Your task to perform on an android device: turn off location history Image 0: 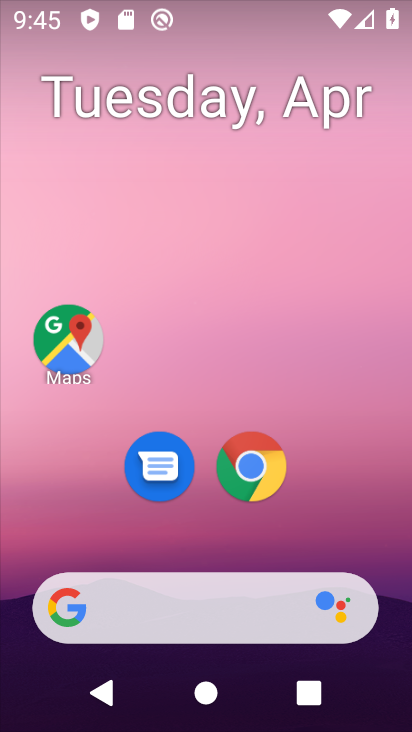
Step 0: drag from (201, 726) to (201, 27)
Your task to perform on an android device: turn off location history Image 1: 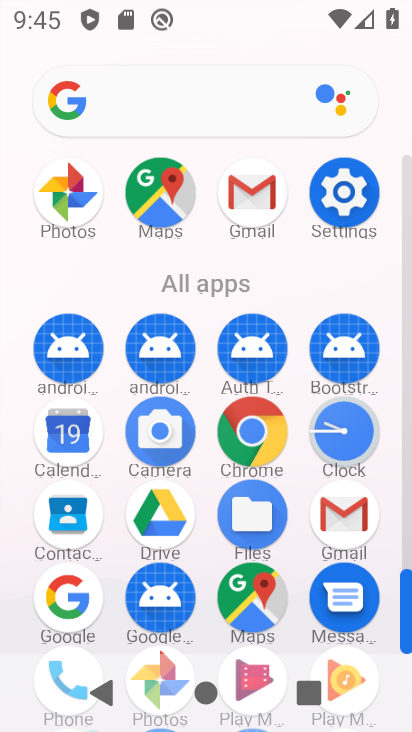
Step 1: click (340, 189)
Your task to perform on an android device: turn off location history Image 2: 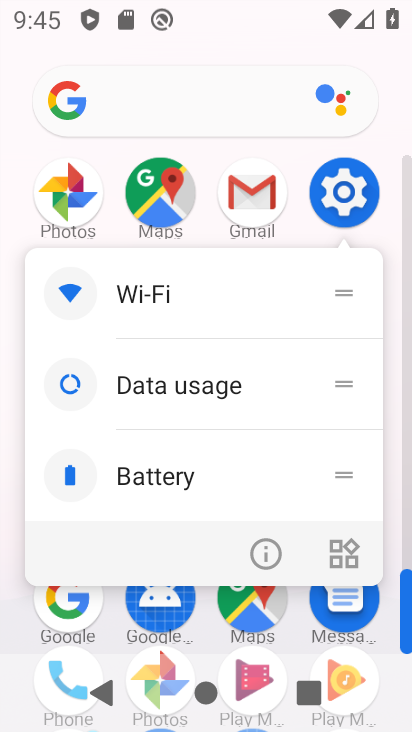
Step 2: click (339, 191)
Your task to perform on an android device: turn off location history Image 3: 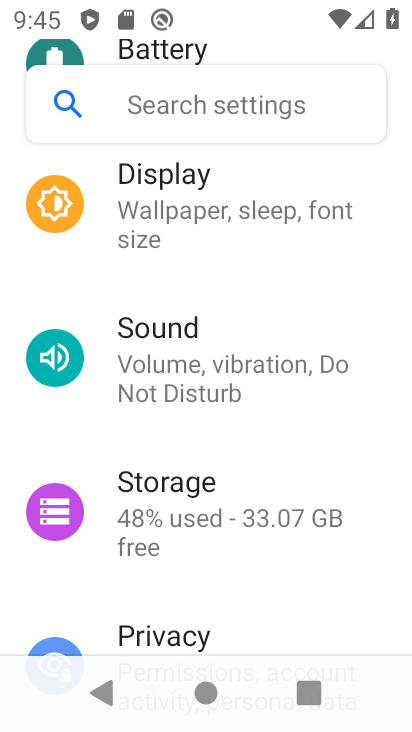
Step 3: drag from (236, 163) to (268, 120)
Your task to perform on an android device: turn off location history Image 4: 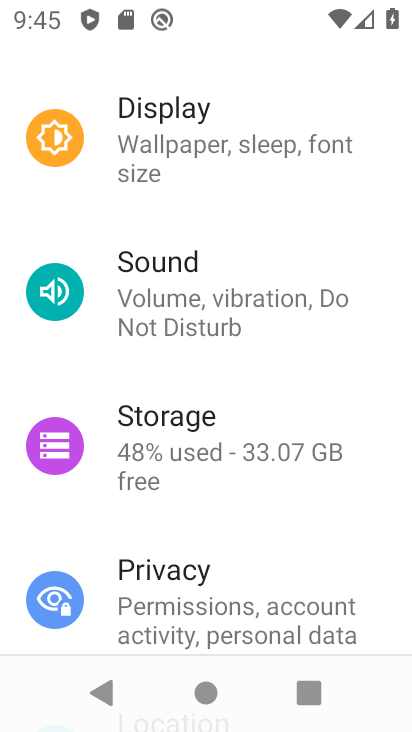
Step 4: drag from (266, 573) to (264, 123)
Your task to perform on an android device: turn off location history Image 5: 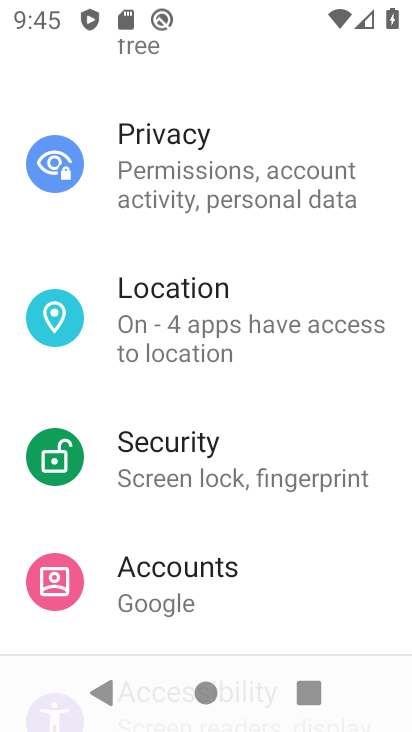
Step 5: click (169, 308)
Your task to perform on an android device: turn off location history Image 6: 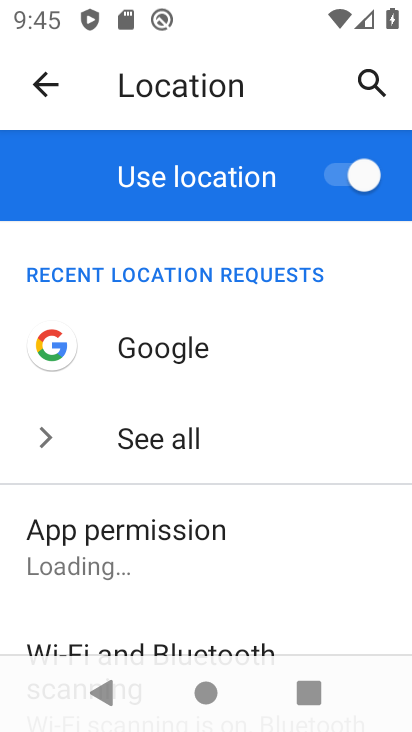
Step 6: drag from (212, 619) to (222, 188)
Your task to perform on an android device: turn off location history Image 7: 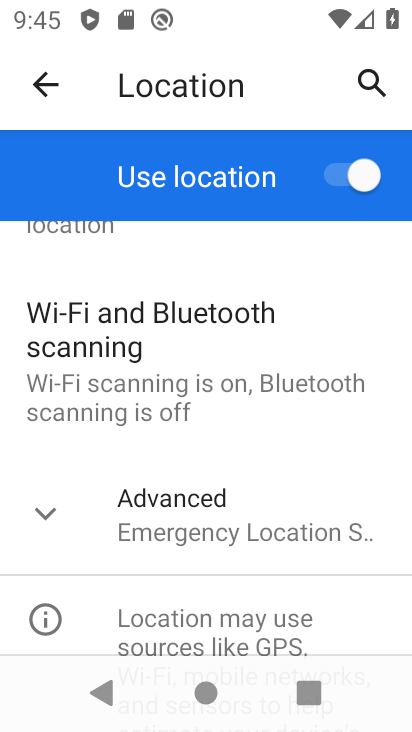
Step 7: click (185, 517)
Your task to perform on an android device: turn off location history Image 8: 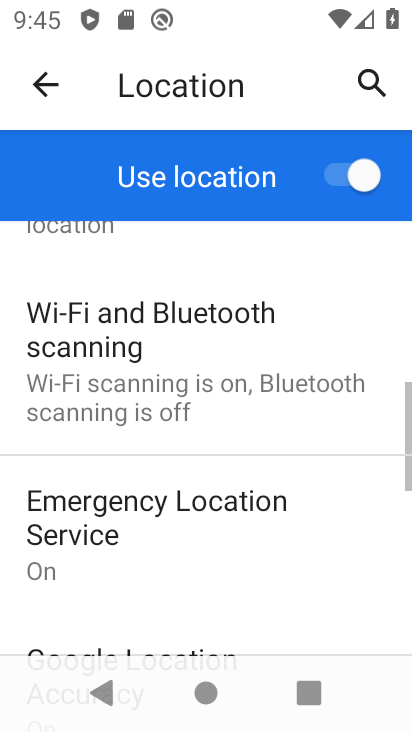
Step 8: drag from (225, 619) to (229, 242)
Your task to perform on an android device: turn off location history Image 9: 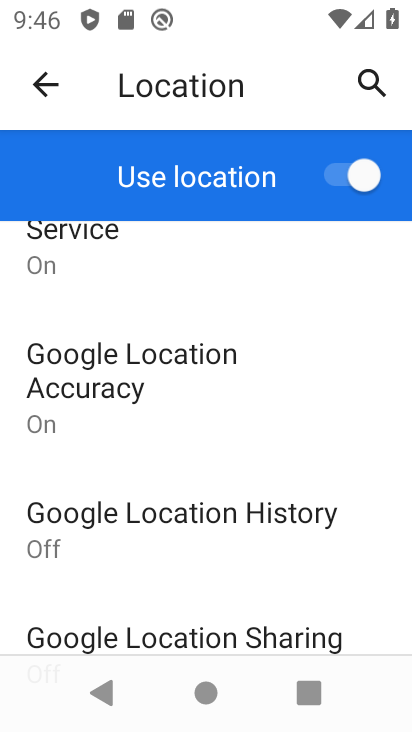
Step 9: click (156, 510)
Your task to perform on an android device: turn off location history Image 10: 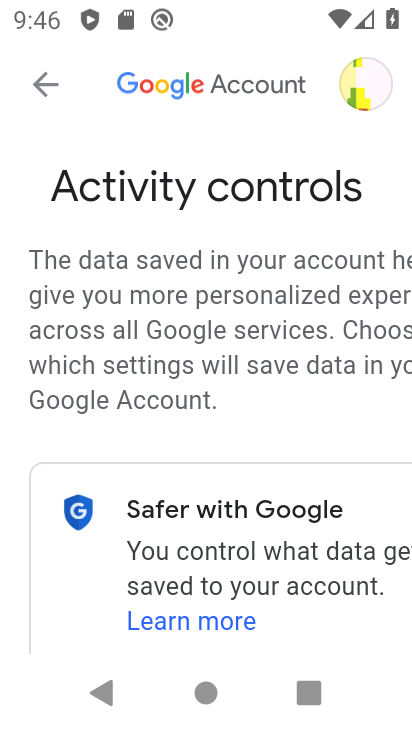
Step 10: task complete